Your task to perform on an android device: Open ESPN.com Image 0: 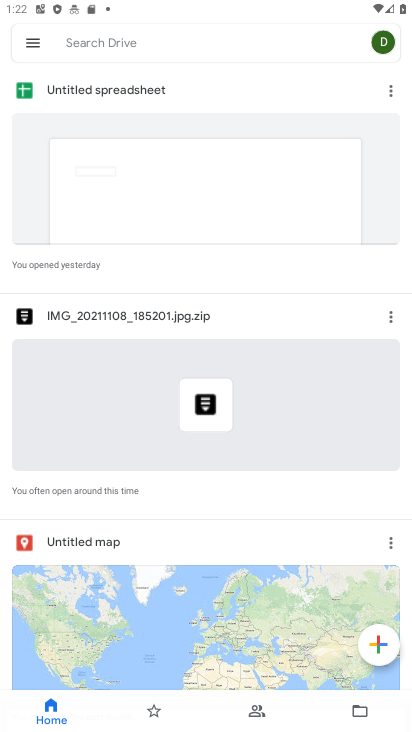
Step 0: press home button
Your task to perform on an android device: Open ESPN.com Image 1: 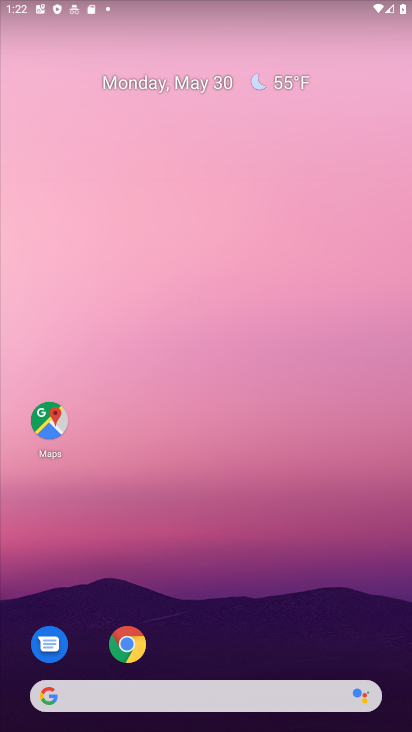
Step 1: click (220, 693)
Your task to perform on an android device: Open ESPN.com Image 2: 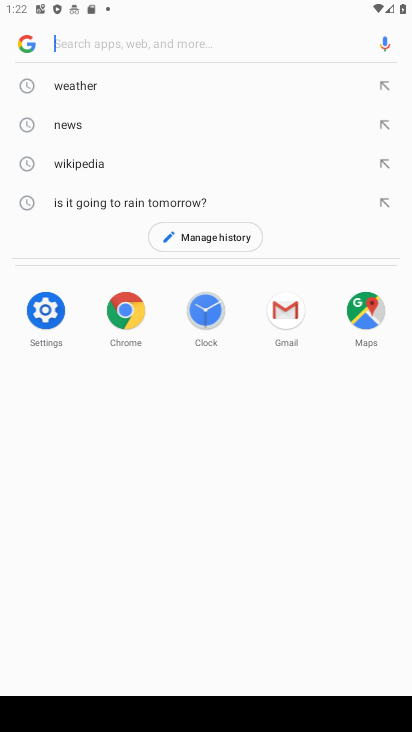
Step 2: type "espn.com"
Your task to perform on an android device: Open ESPN.com Image 3: 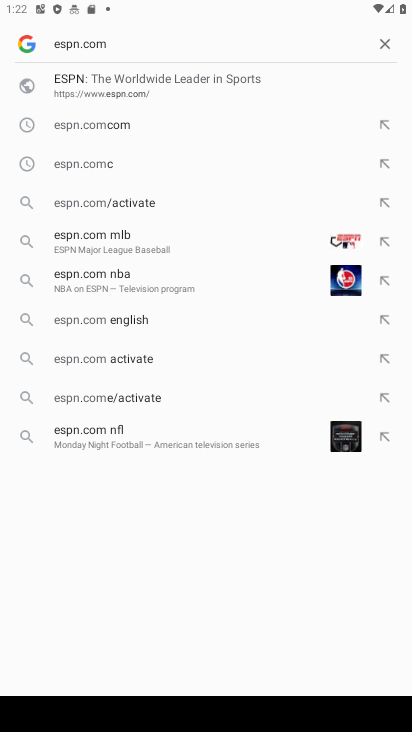
Step 3: click (106, 95)
Your task to perform on an android device: Open ESPN.com Image 4: 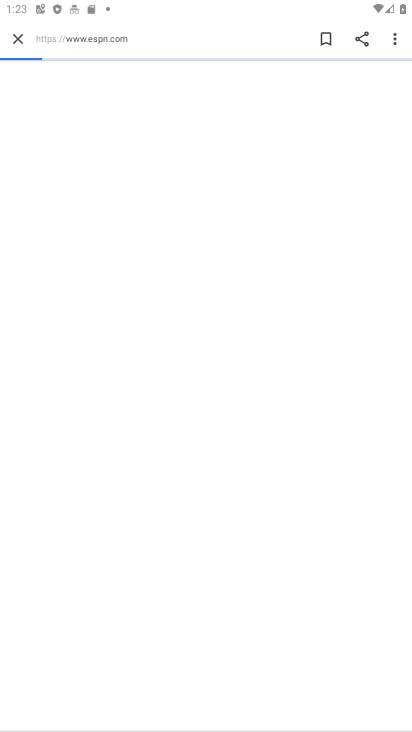
Step 4: task complete